Your task to perform on an android device: Open Wikipedia Image 0: 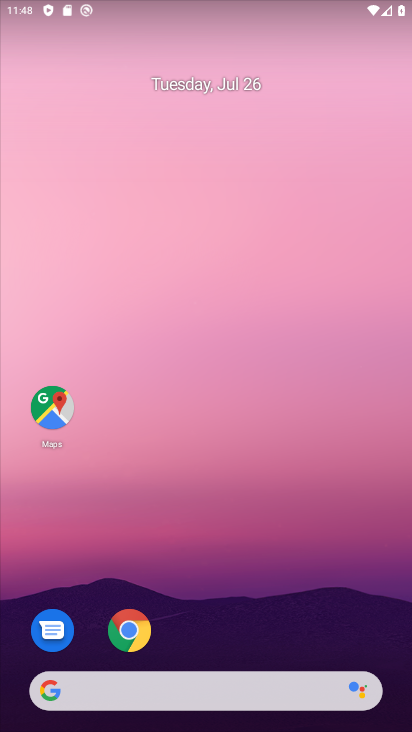
Step 0: press home button
Your task to perform on an android device: Open Wikipedia Image 1: 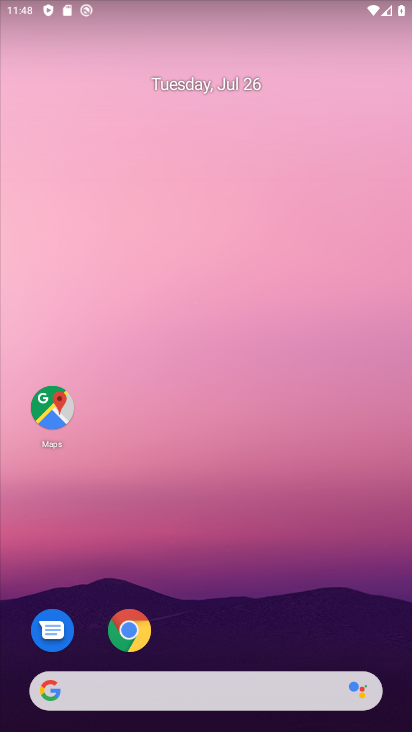
Step 1: click (126, 634)
Your task to perform on an android device: Open Wikipedia Image 2: 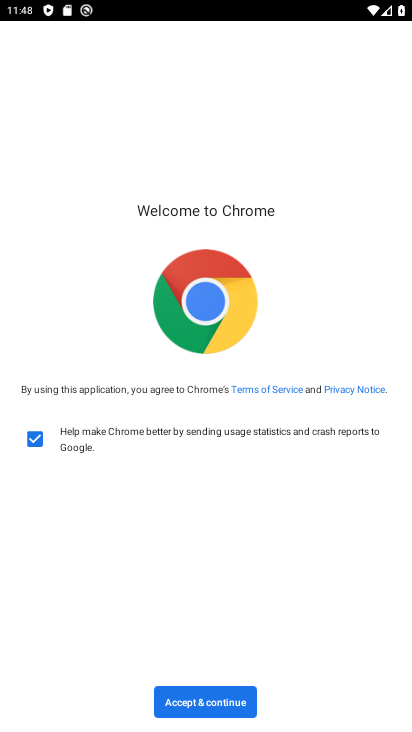
Step 2: click (224, 715)
Your task to perform on an android device: Open Wikipedia Image 3: 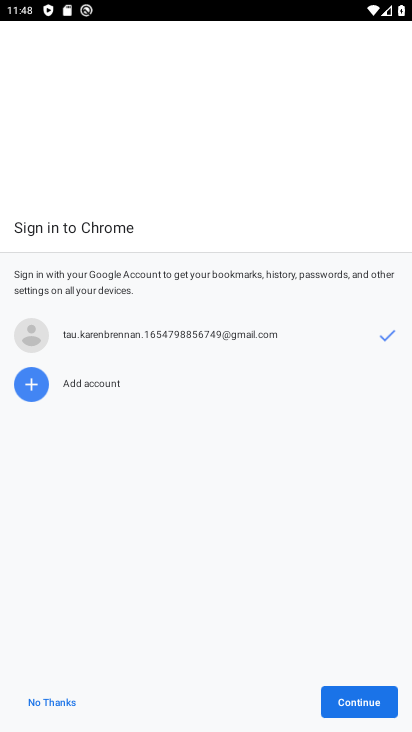
Step 3: click (336, 695)
Your task to perform on an android device: Open Wikipedia Image 4: 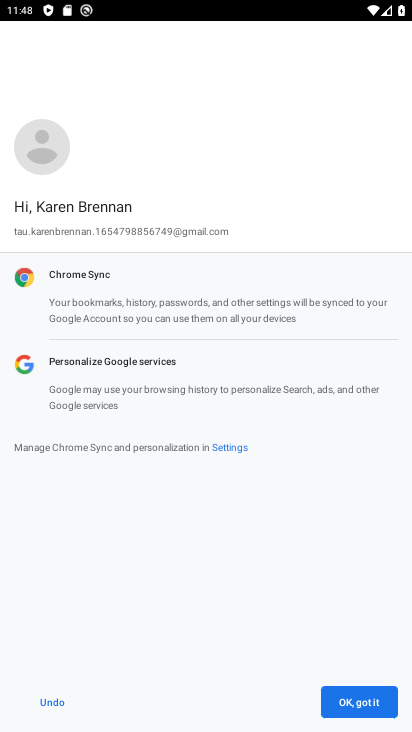
Step 4: click (377, 700)
Your task to perform on an android device: Open Wikipedia Image 5: 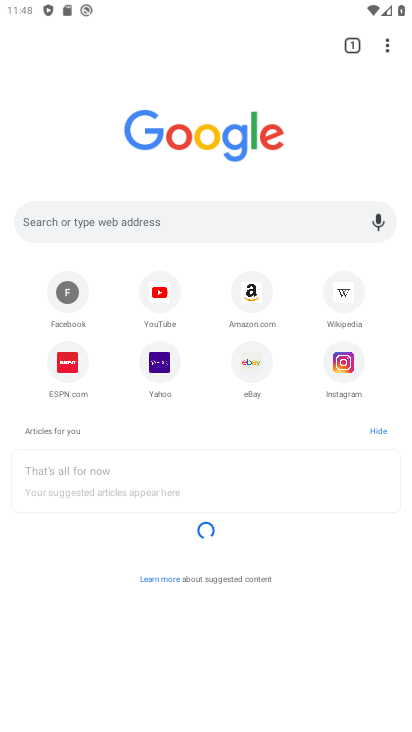
Step 5: click (338, 297)
Your task to perform on an android device: Open Wikipedia Image 6: 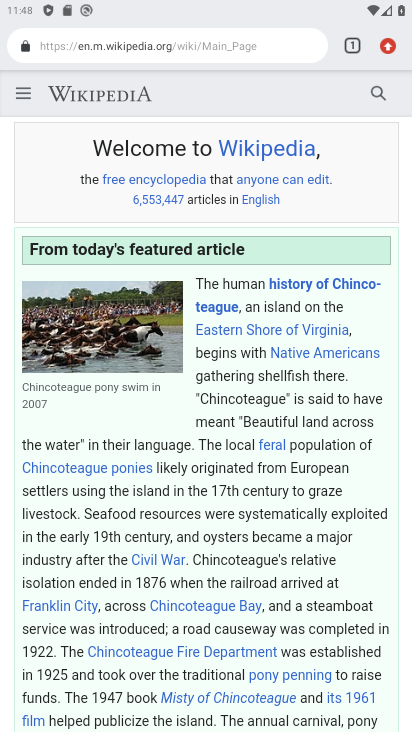
Step 6: task complete